Your task to perform on an android device: turn notification dots off Image 0: 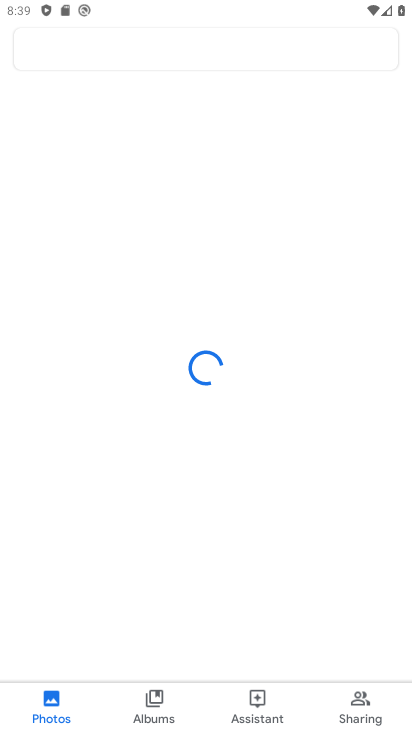
Step 0: press home button
Your task to perform on an android device: turn notification dots off Image 1: 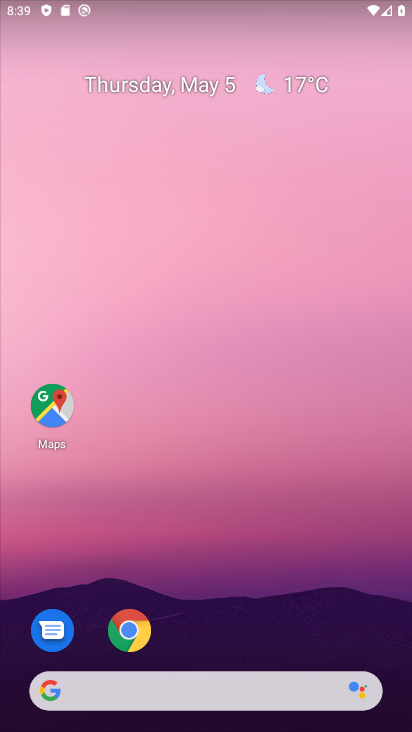
Step 1: drag from (213, 656) to (175, 81)
Your task to perform on an android device: turn notification dots off Image 2: 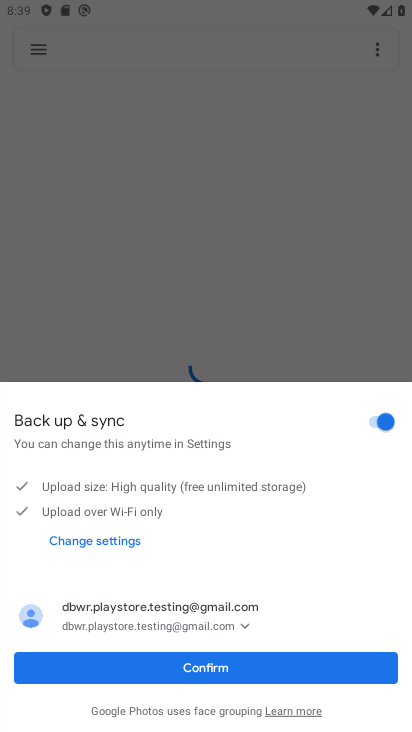
Step 2: press home button
Your task to perform on an android device: turn notification dots off Image 3: 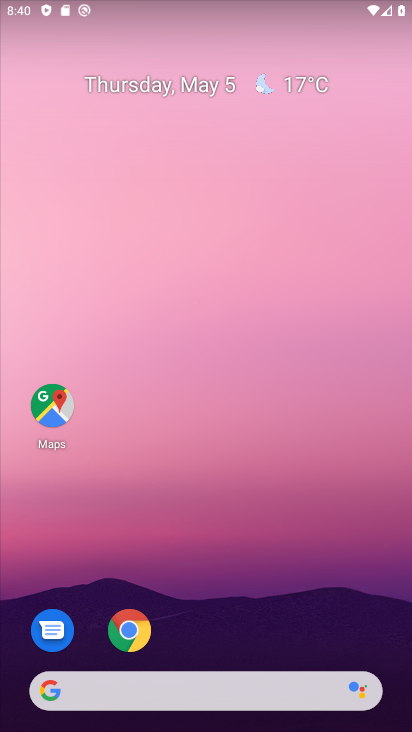
Step 3: drag from (226, 634) to (214, 4)
Your task to perform on an android device: turn notification dots off Image 4: 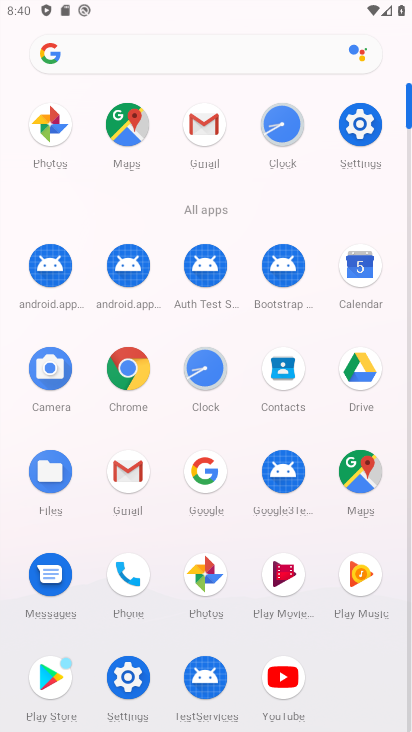
Step 4: click (357, 119)
Your task to perform on an android device: turn notification dots off Image 5: 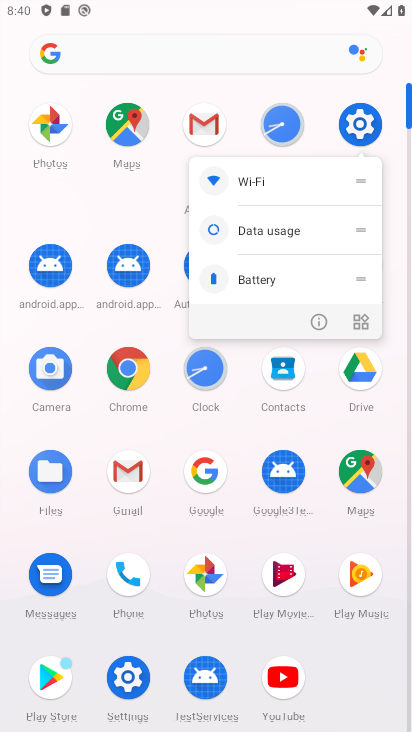
Step 5: click (124, 672)
Your task to perform on an android device: turn notification dots off Image 6: 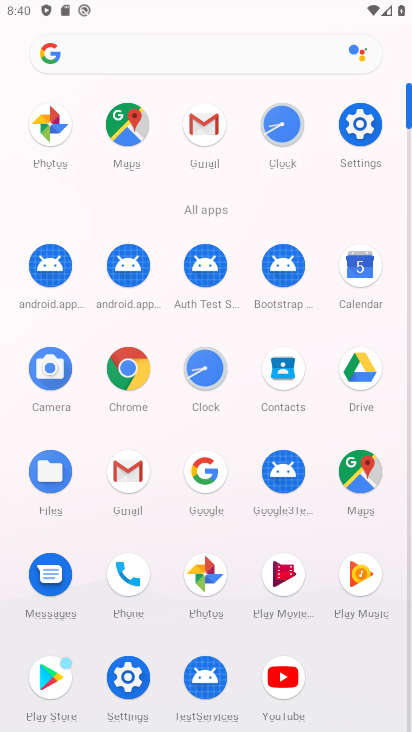
Step 6: click (126, 675)
Your task to perform on an android device: turn notification dots off Image 7: 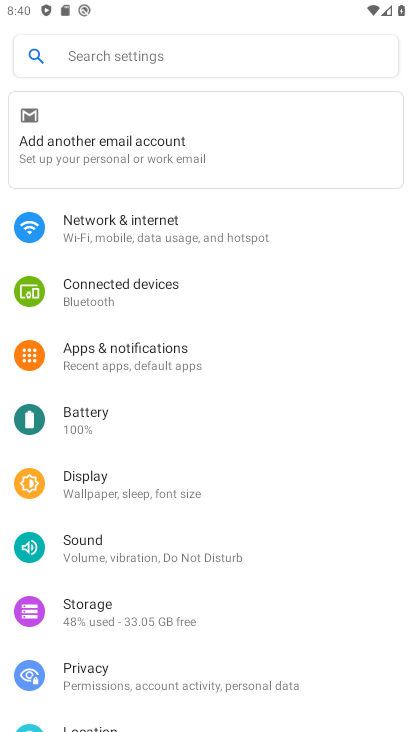
Step 7: click (136, 351)
Your task to perform on an android device: turn notification dots off Image 8: 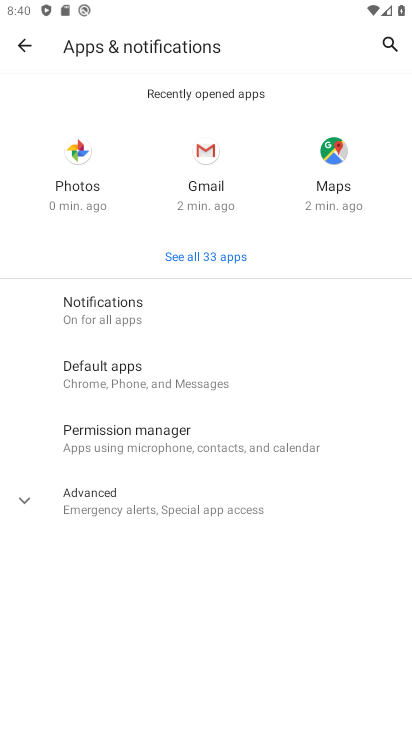
Step 8: click (148, 306)
Your task to perform on an android device: turn notification dots off Image 9: 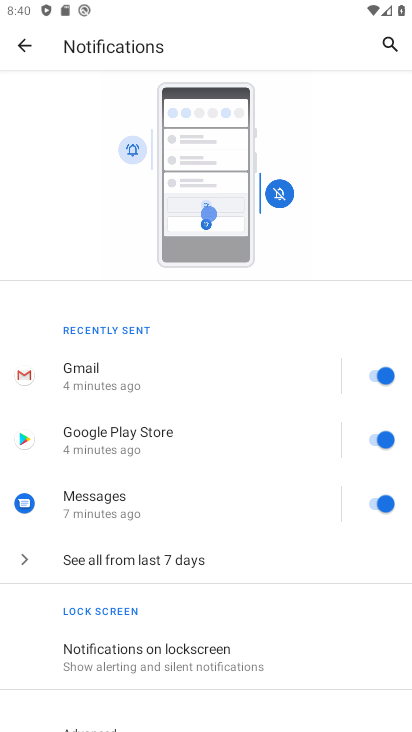
Step 9: drag from (126, 654) to (132, 265)
Your task to perform on an android device: turn notification dots off Image 10: 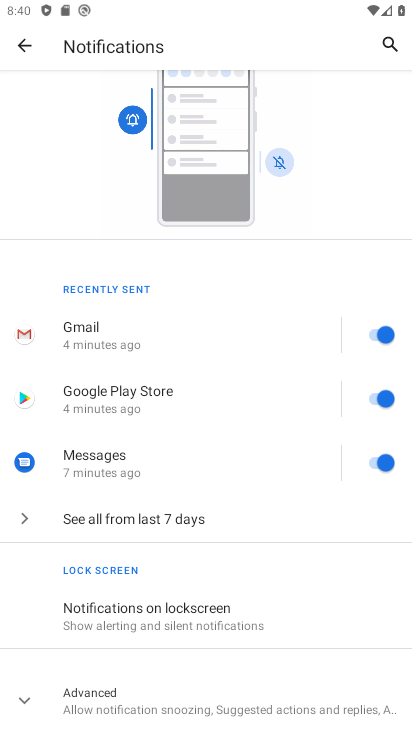
Step 10: click (24, 698)
Your task to perform on an android device: turn notification dots off Image 11: 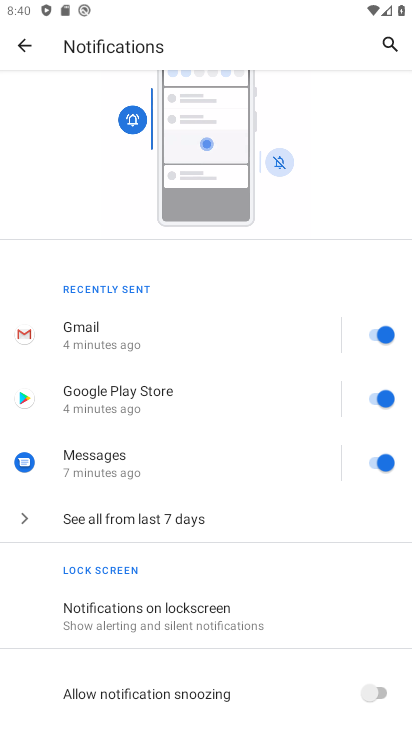
Step 11: drag from (152, 660) to (158, 84)
Your task to perform on an android device: turn notification dots off Image 12: 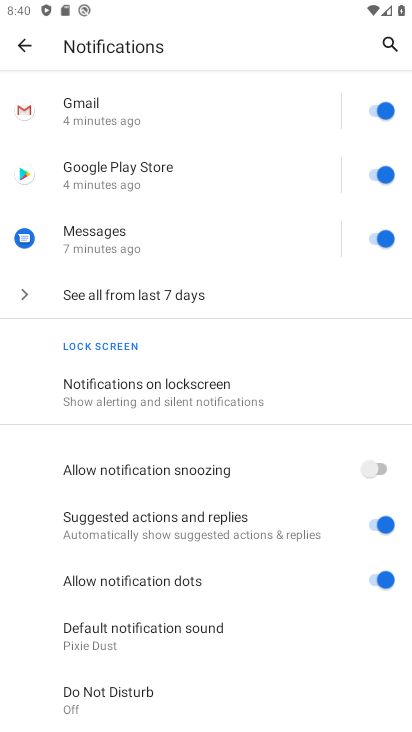
Step 12: click (373, 582)
Your task to perform on an android device: turn notification dots off Image 13: 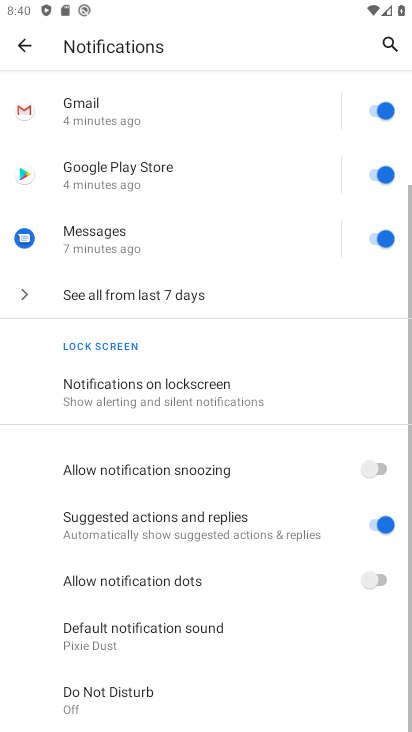
Step 13: task complete